Your task to perform on an android device: Open Amazon Image 0: 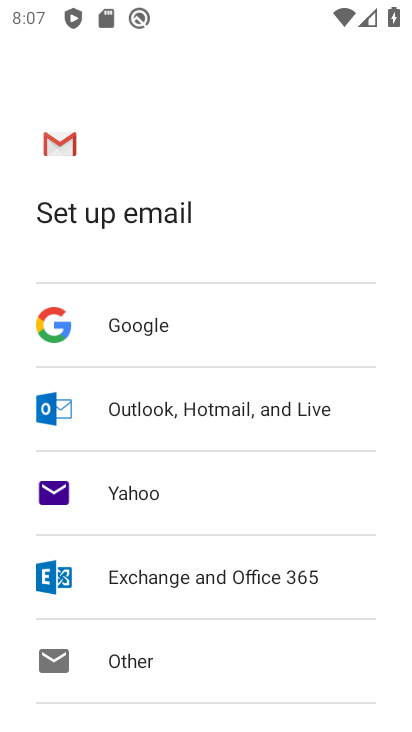
Step 0: press home button
Your task to perform on an android device: Open Amazon Image 1: 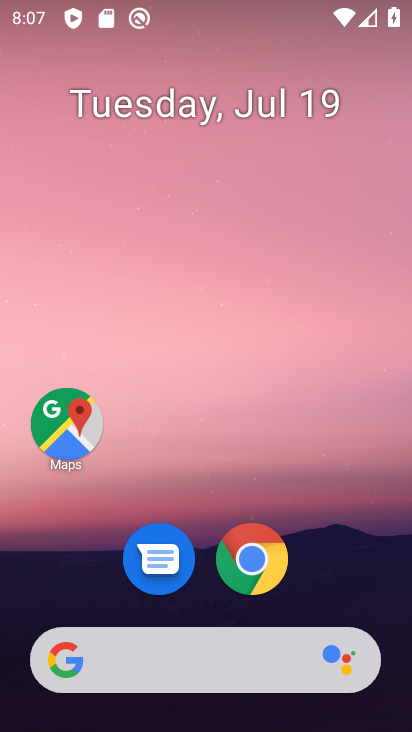
Step 1: drag from (353, 575) to (254, 256)
Your task to perform on an android device: Open Amazon Image 2: 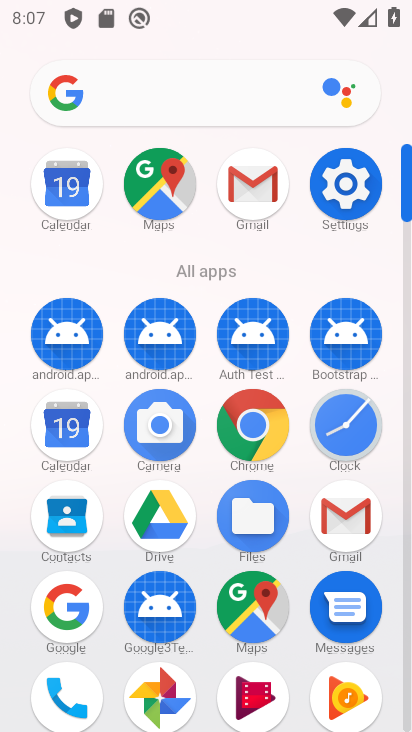
Step 2: click (233, 415)
Your task to perform on an android device: Open Amazon Image 3: 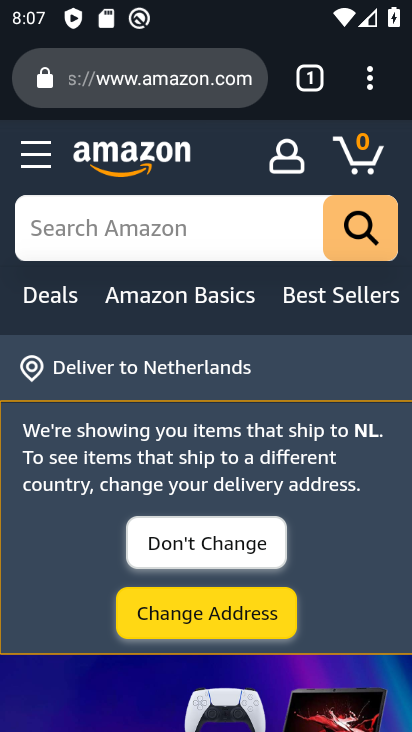
Step 3: task complete